Your task to perform on an android device: Open Google Image 0: 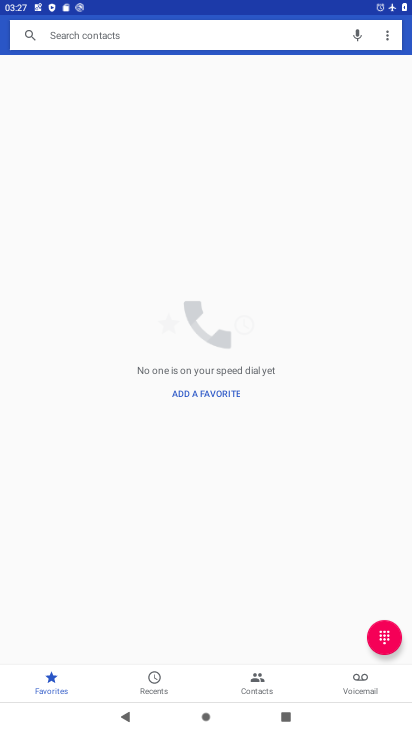
Step 0: press home button
Your task to perform on an android device: Open Google Image 1: 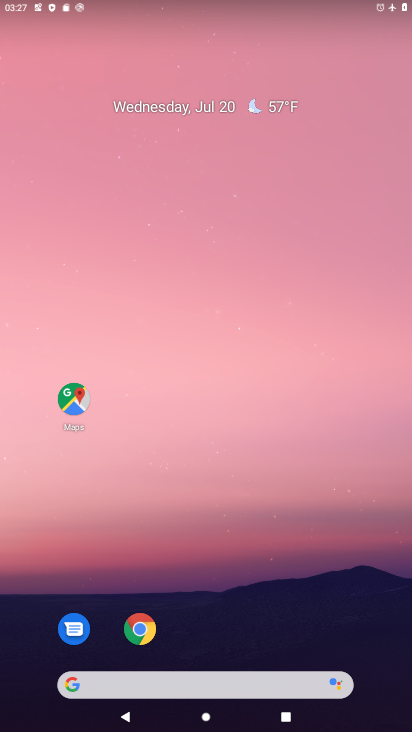
Step 1: click (140, 629)
Your task to perform on an android device: Open Google Image 2: 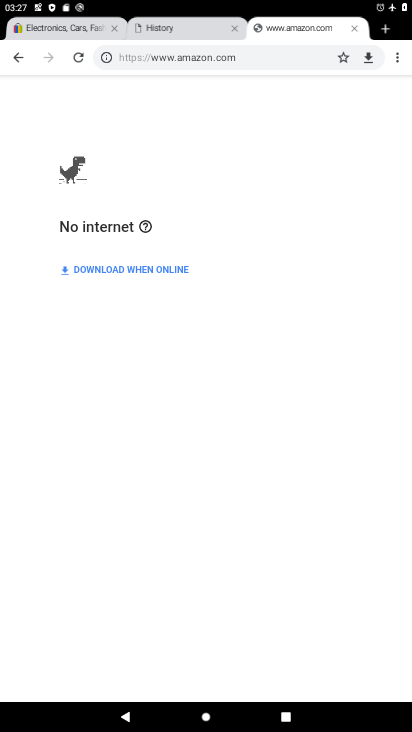
Step 2: task complete